Your task to perform on an android device: turn on notifications settings in the gmail app Image 0: 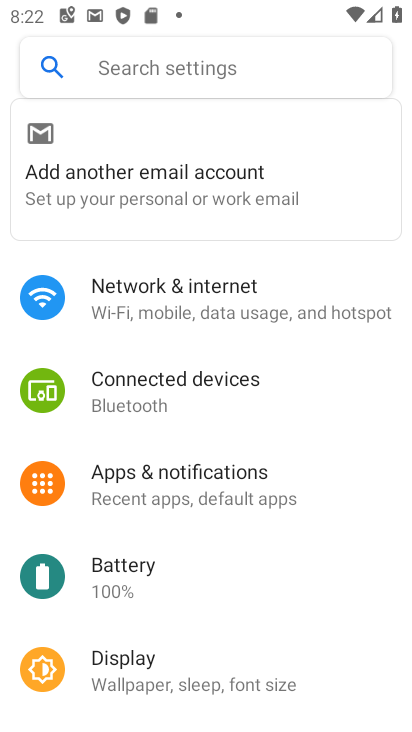
Step 0: press home button
Your task to perform on an android device: turn on notifications settings in the gmail app Image 1: 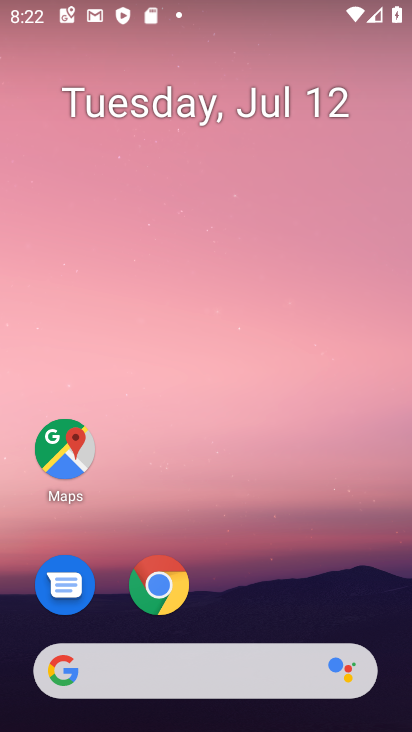
Step 1: drag from (261, 575) to (310, 105)
Your task to perform on an android device: turn on notifications settings in the gmail app Image 2: 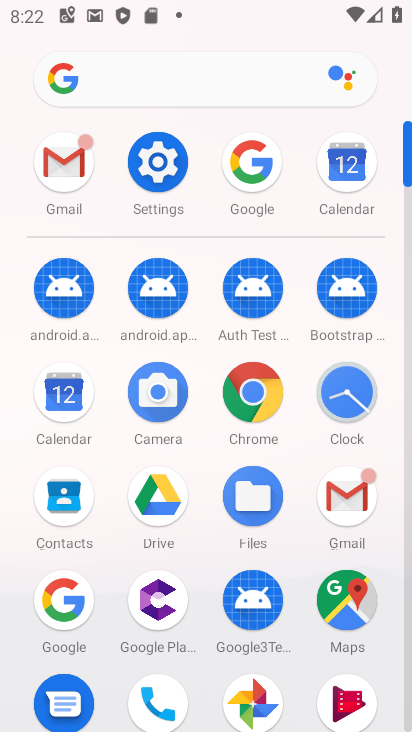
Step 2: click (79, 160)
Your task to perform on an android device: turn on notifications settings in the gmail app Image 3: 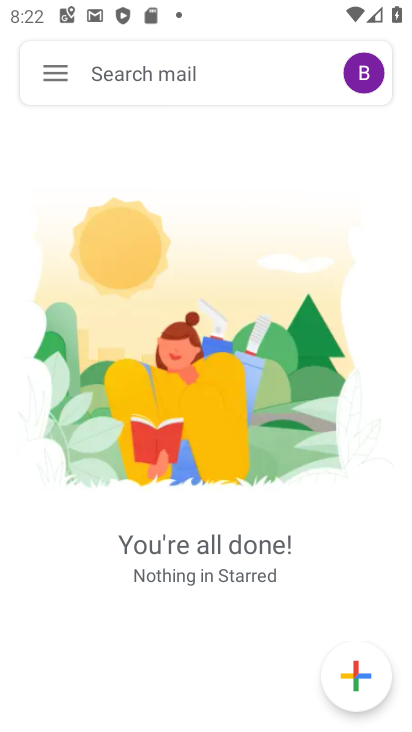
Step 3: click (63, 74)
Your task to perform on an android device: turn on notifications settings in the gmail app Image 4: 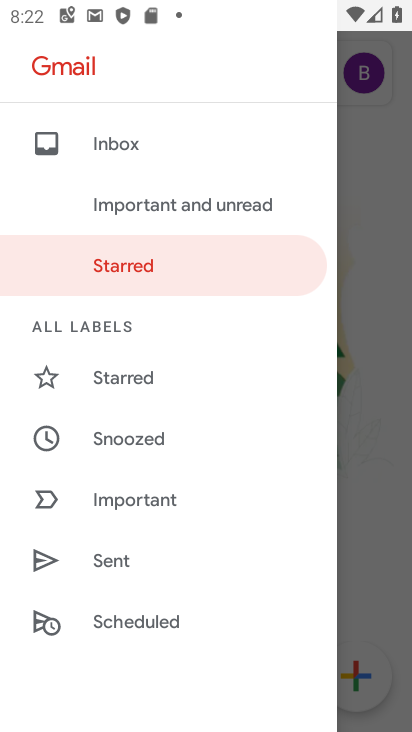
Step 4: drag from (158, 550) to (176, 183)
Your task to perform on an android device: turn on notifications settings in the gmail app Image 5: 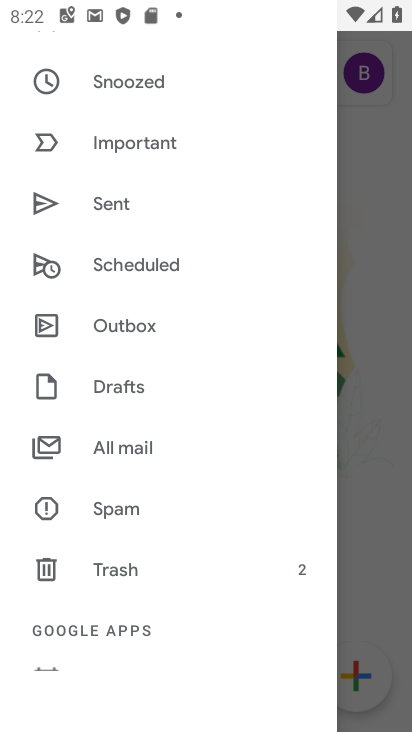
Step 5: drag from (170, 493) to (208, 153)
Your task to perform on an android device: turn on notifications settings in the gmail app Image 6: 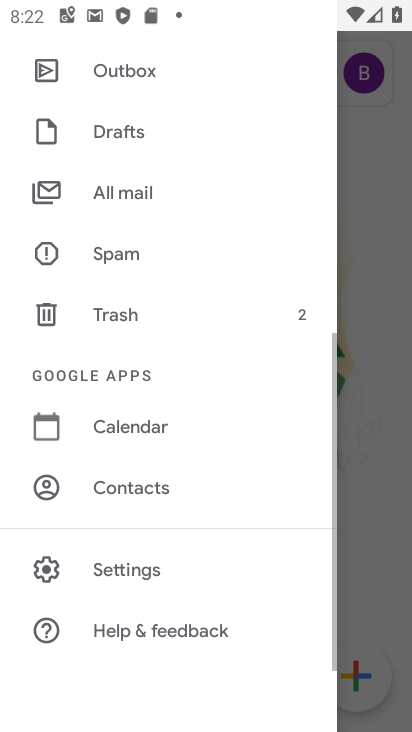
Step 6: click (147, 563)
Your task to perform on an android device: turn on notifications settings in the gmail app Image 7: 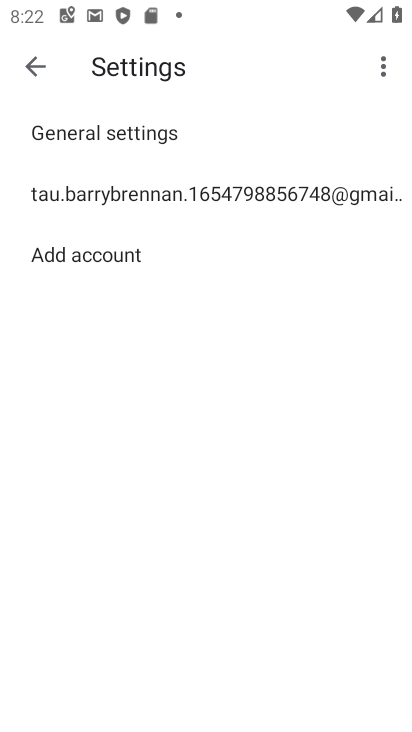
Step 7: click (155, 132)
Your task to perform on an android device: turn on notifications settings in the gmail app Image 8: 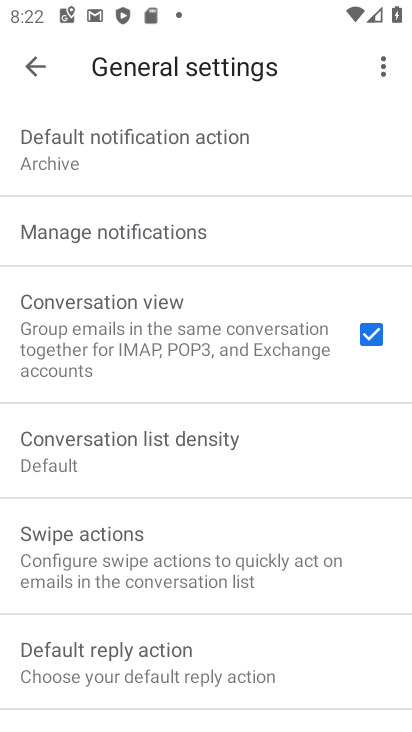
Step 8: click (182, 227)
Your task to perform on an android device: turn on notifications settings in the gmail app Image 9: 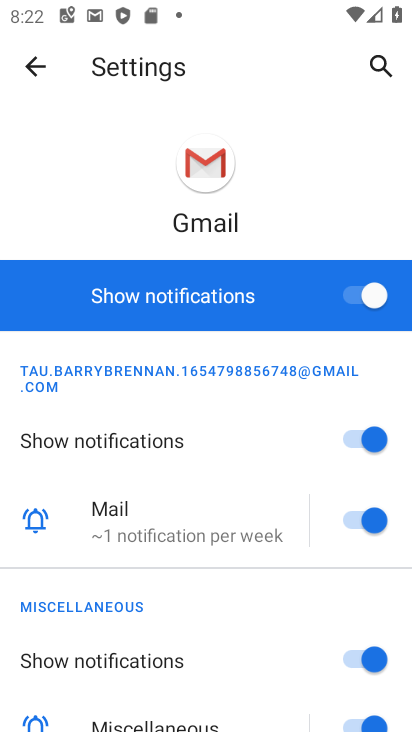
Step 9: task complete